Your task to perform on an android device: turn notification dots off Image 0: 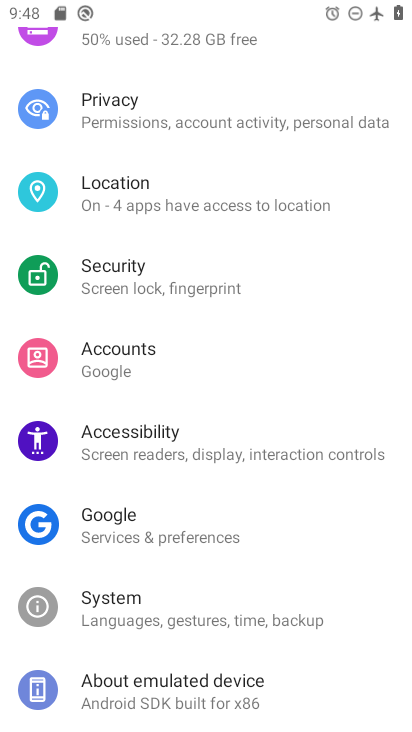
Step 0: press home button
Your task to perform on an android device: turn notification dots off Image 1: 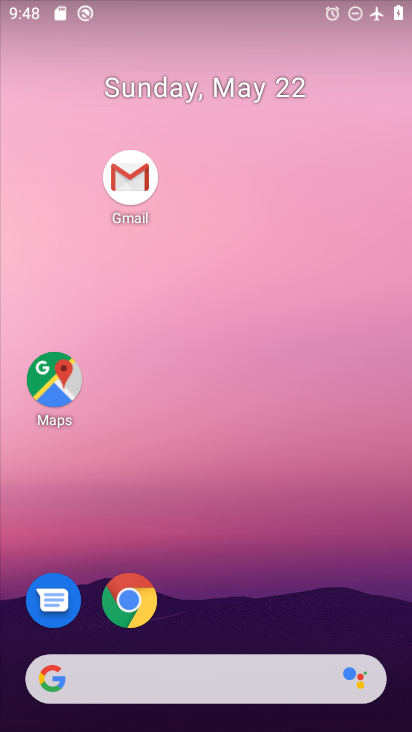
Step 1: drag from (249, 627) to (326, 36)
Your task to perform on an android device: turn notification dots off Image 2: 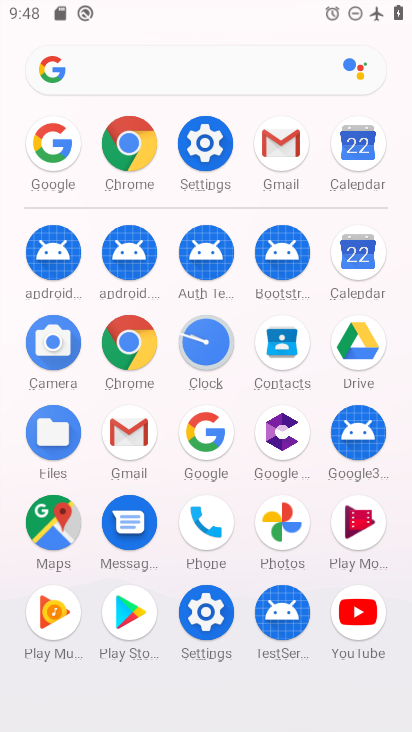
Step 2: click (215, 155)
Your task to perform on an android device: turn notification dots off Image 3: 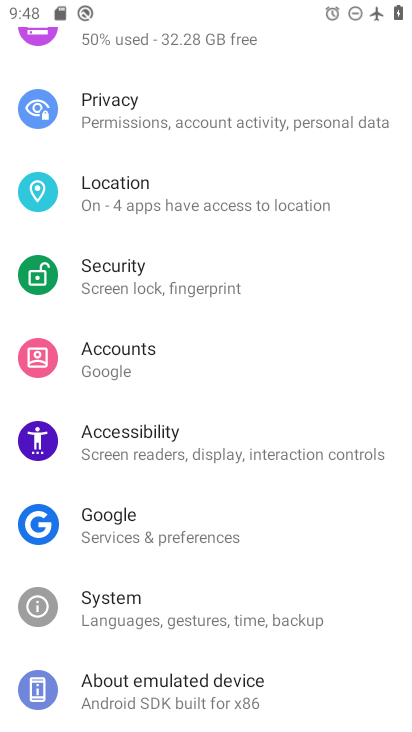
Step 3: drag from (161, 348) to (131, 705)
Your task to perform on an android device: turn notification dots off Image 4: 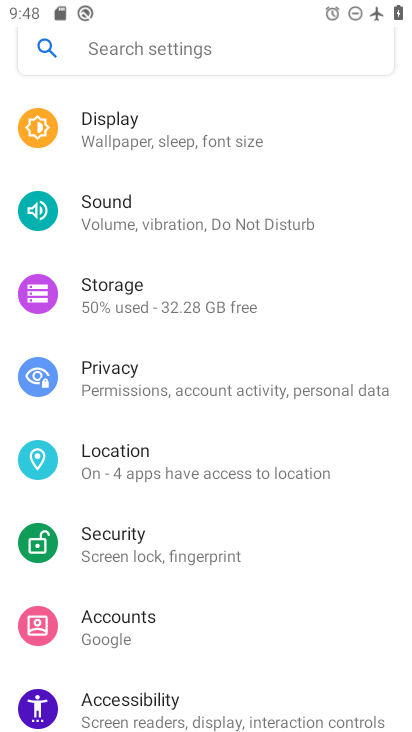
Step 4: drag from (217, 229) to (222, 616)
Your task to perform on an android device: turn notification dots off Image 5: 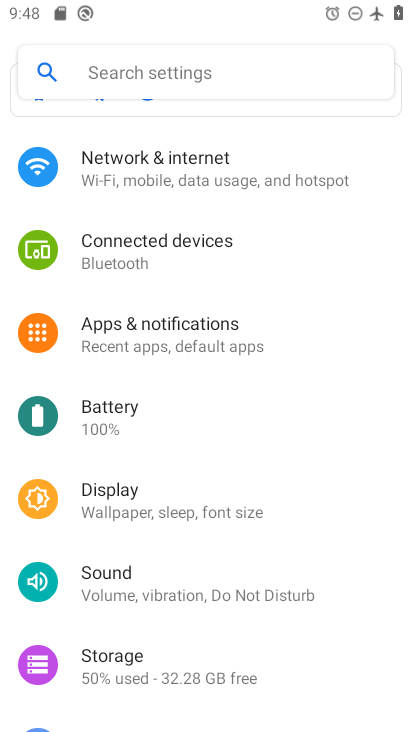
Step 5: click (242, 338)
Your task to perform on an android device: turn notification dots off Image 6: 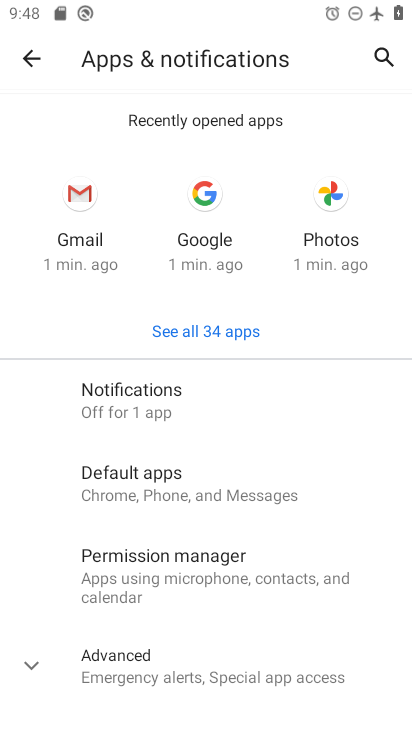
Step 6: click (203, 413)
Your task to perform on an android device: turn notification dots off Image 7: 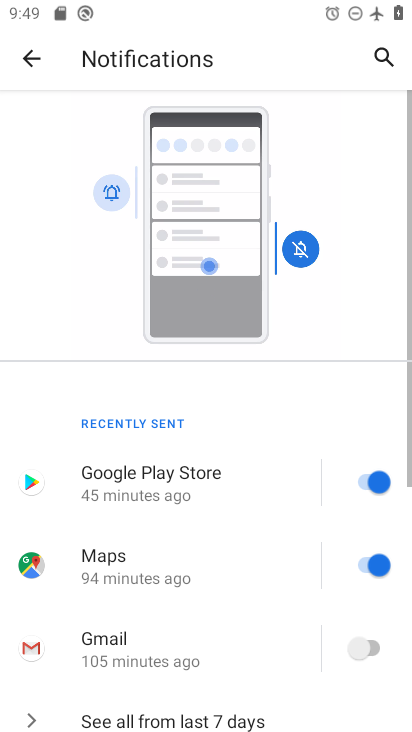
Step 7: drag from (179, 555) to (244, 119)
Your task to perform on an android device: turn notification dots off Image 8: 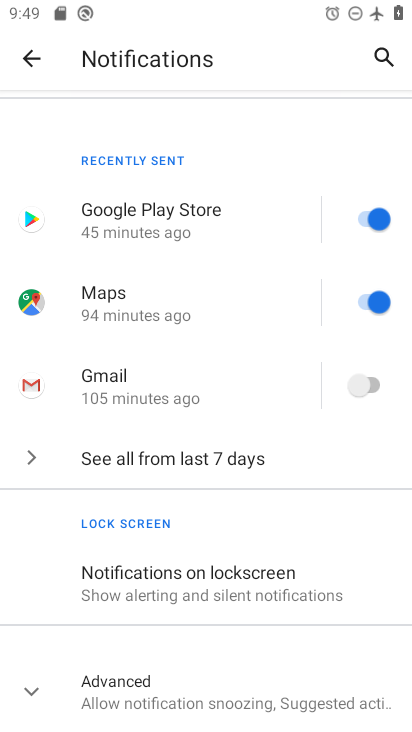
Step 8: drag from (205, 582) to (242, 241)
Your task to perform on an android device: turn notification dots off Image 9: 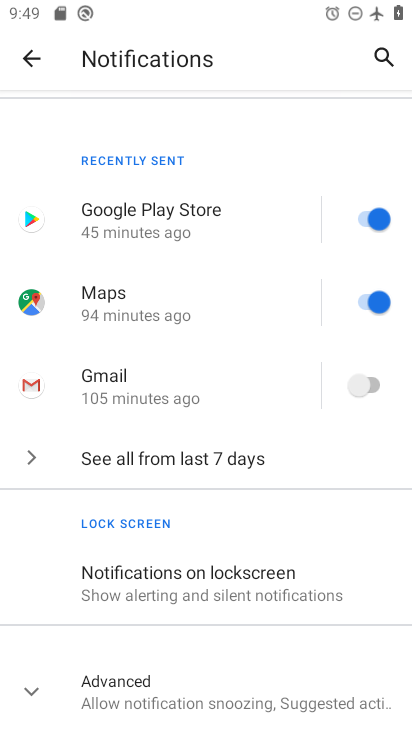
Step 9: drag from (164, 654) to (180, 353)
Your task to perform on an android device: turn notification dots off Image 10: 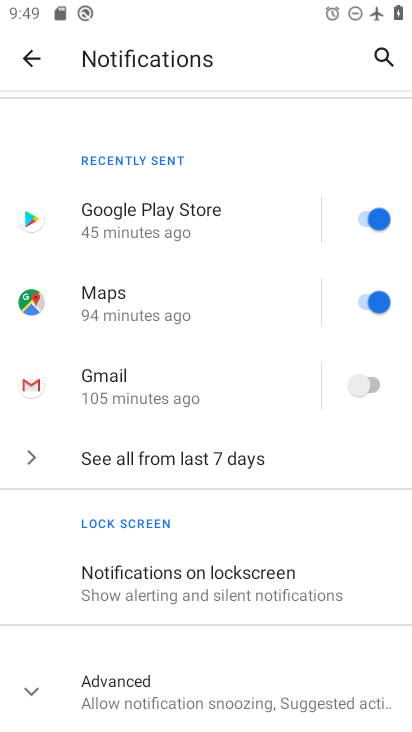
Step 10: click (160, 688)
Your task to perform on an android device: turn notification dots off Image 11: 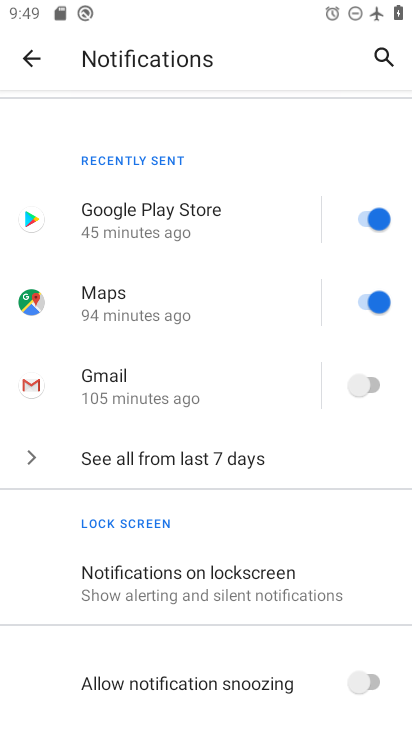
Step 11: drag from (174, 632) to (257, 206)
Your task to perform on an android device: turn notification dots off Image 12: 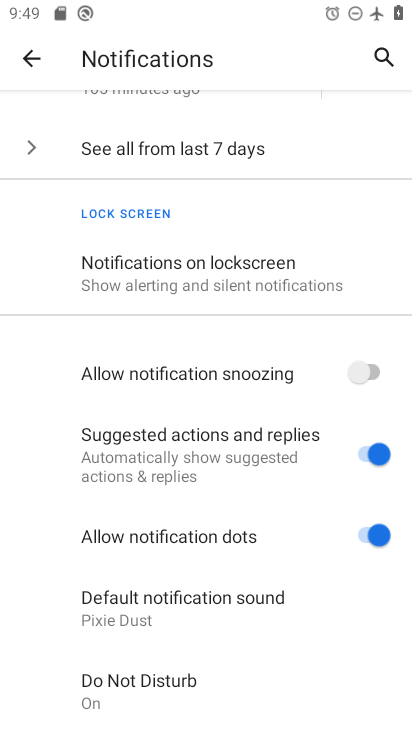
Step 12: click (364, 535)
Your task to perform on an android device: turn notification dots off Image 13: 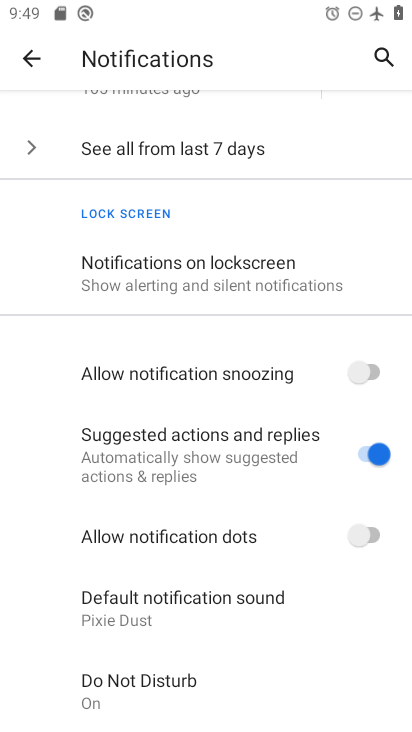
Step 13: task complete